Your task to perform on an android device: Toggle the flashlight Image 0: 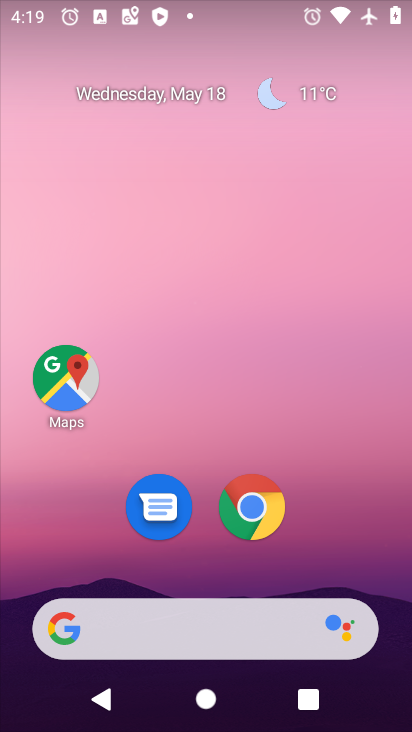
Step 0: drag from (222, 16) to (221, 424)
Your task to perform on an android device: Toggle the flashlight Image 1: 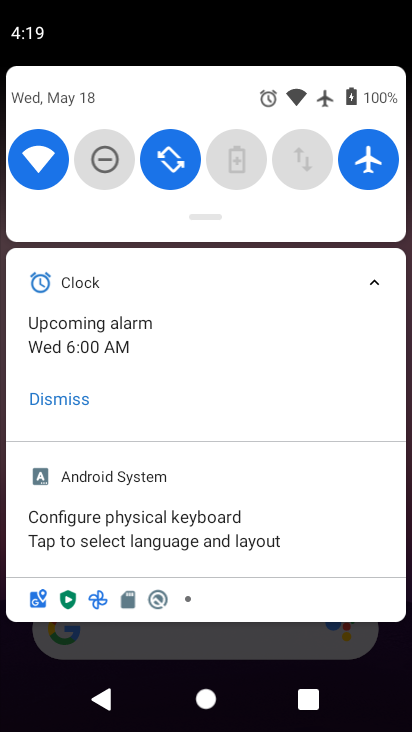
Step 1: drag from (206, 217) to (199, 462)
Your task to perform on an android device: Toggle the flashlight Image 2: 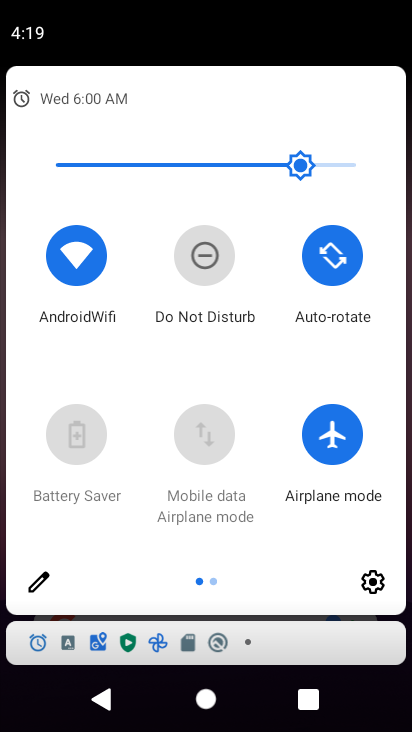
Step 2: click (34, 580)
Your task to perform on an android device: Toggle the flashlight Image 3: 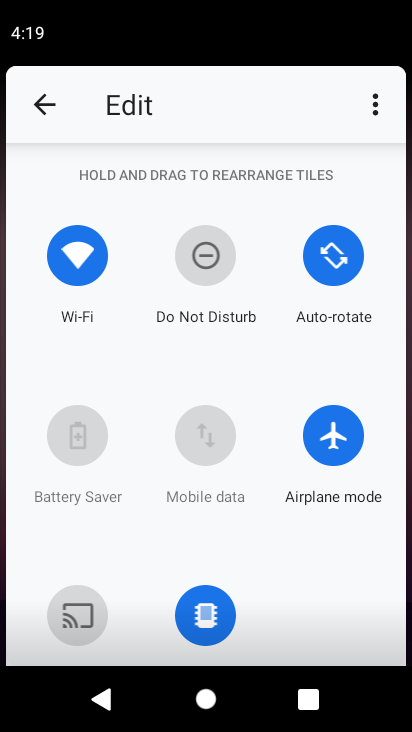
Step 3: task complete